Your task to perform on an android device: Open calendar and show me the first week of next month Image 0: 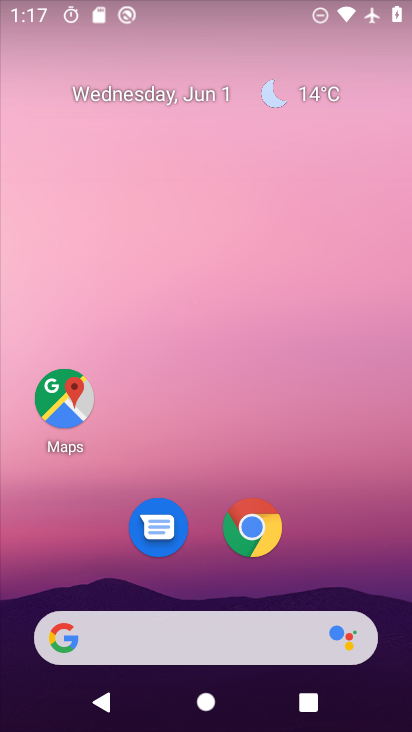
Step 0: drag from (195, 598) to (259, 180)
Your task to perform on an android device: Open calendar and show me the first week of next month Image 1: 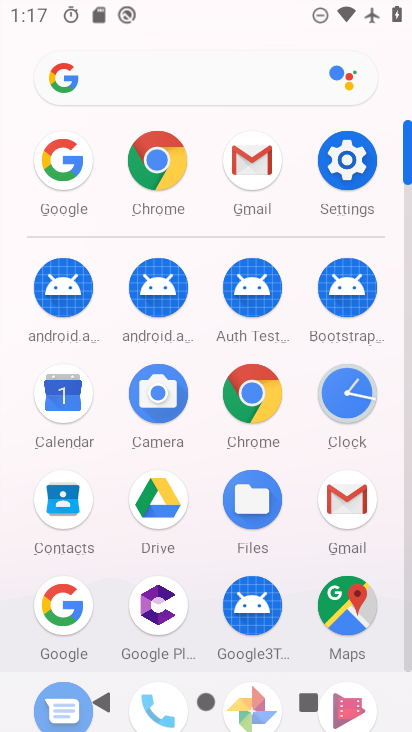
Step 1: drag from (216, 576) to (261, 230)
Your task to perform on an android device: Open calendar and show me the first week of next month Image 2: 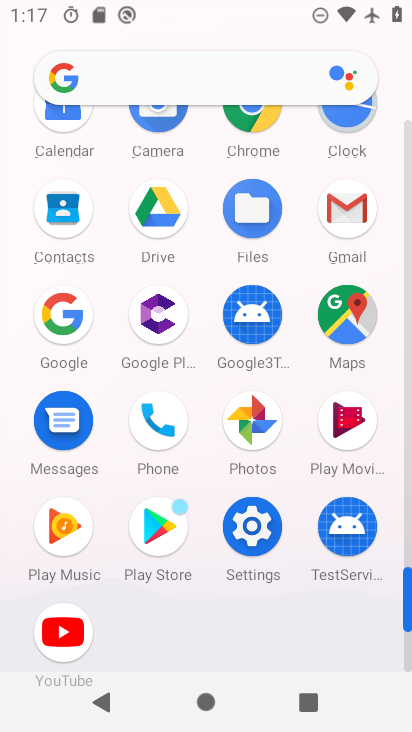
Step 2: drag from (213, 209) to (196, 472)
Your task to perform on an android device: Open calendar and show me the first week of next month Image 3: 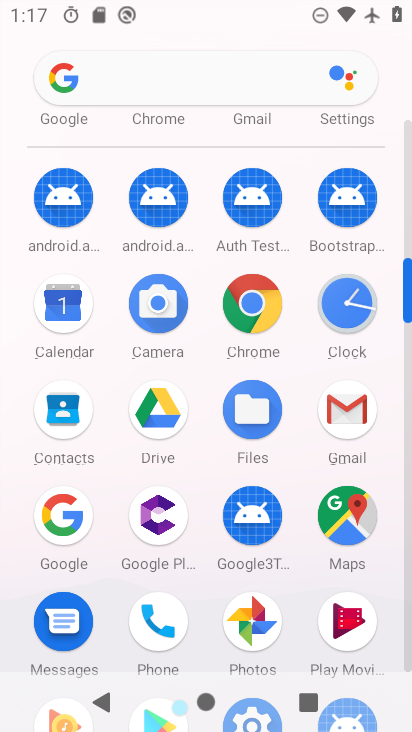
Step 3: drag from (203, 430) to (221, 264)
Your task to perform on an android device: Open calendar and show me the first week of next month Image 4: 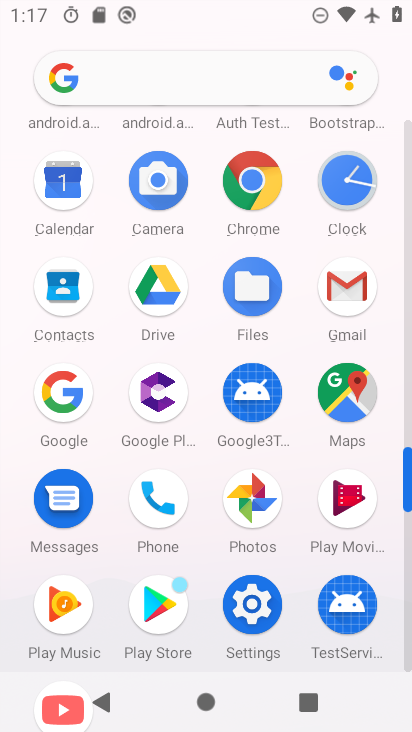
Step 4: drag from (300, 255) to (271, 374)
Your task to perform on an android device: Open calendar and show me the first week of next month Image 5: 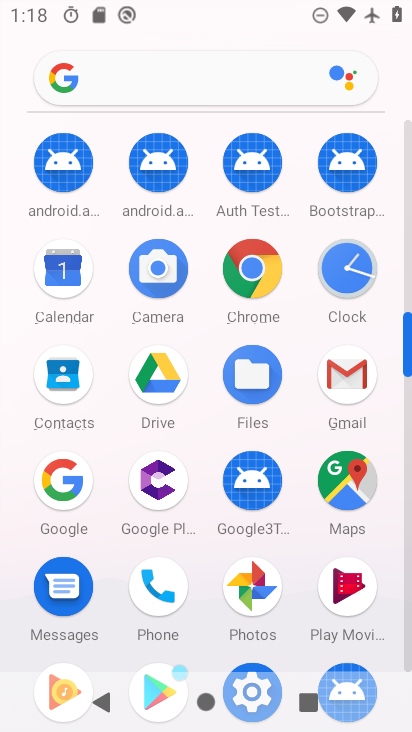
Step 5: click (65, 283)
Your task to perform on an android device: Open calendar and show me the first week of next month Image 6: 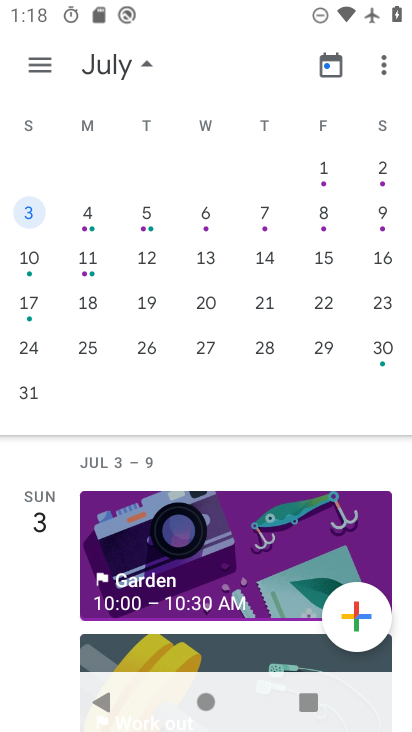
Step 6: click (28, 216)
Your task to perform on an android device: Open calendar and show me the first week of next month Image 7: 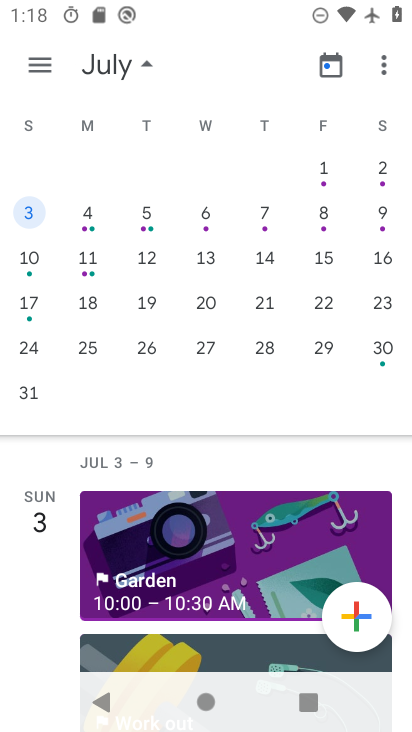
Step 7: task complete